Your task to perform on an android device: Open sound settings Image 0: 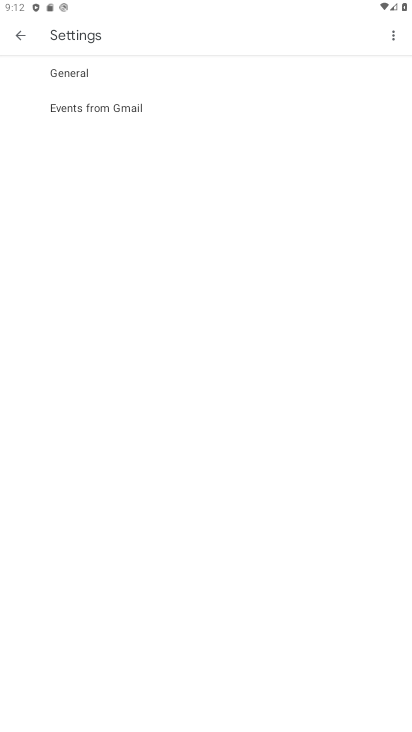
Step 0: press home button
Your task to perform on an android device: Open sound settings Image 1: 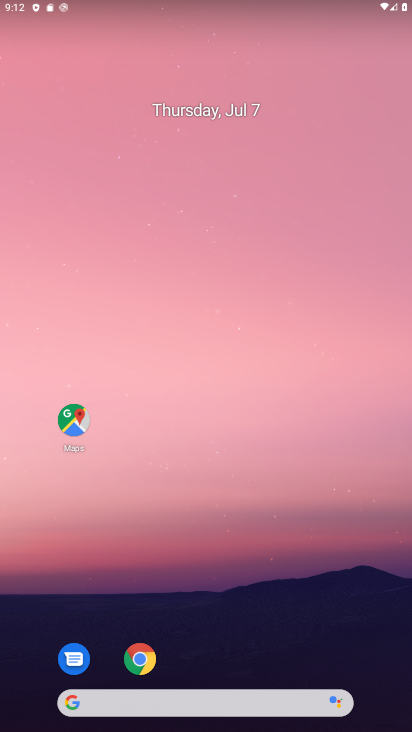
Step 1: drag from (253, 574) to (248, 90)
Your task to perform on an android device: Open sound settings Image 2: 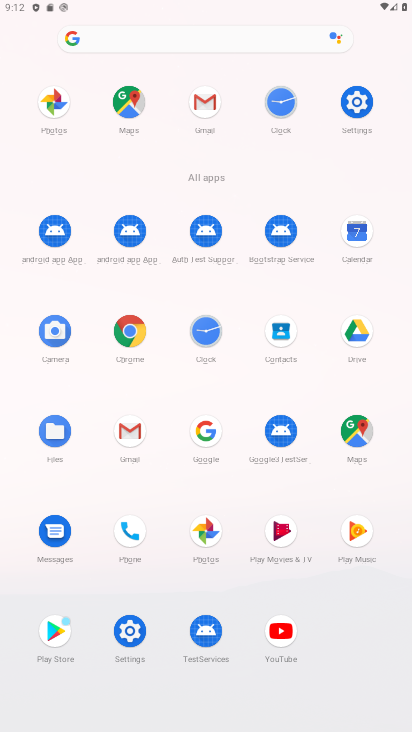
Step 2: click (354, 107)
Your task to perform on an android device: Open sound settings Image 3: 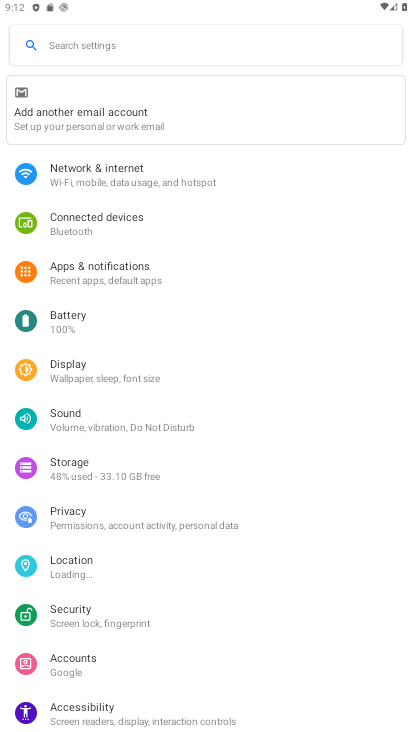
Step 3: click (130, 417)
Your task to perform on an android device: Open sound settings Image 4: 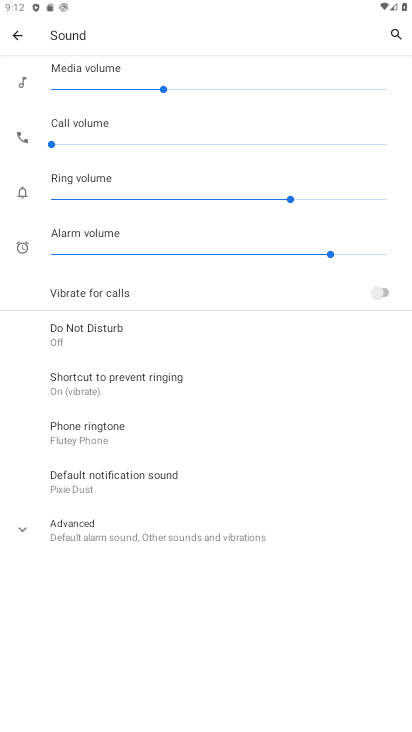
Step 4: task complete